Your task to perform on an android device: Open Google Image 0: 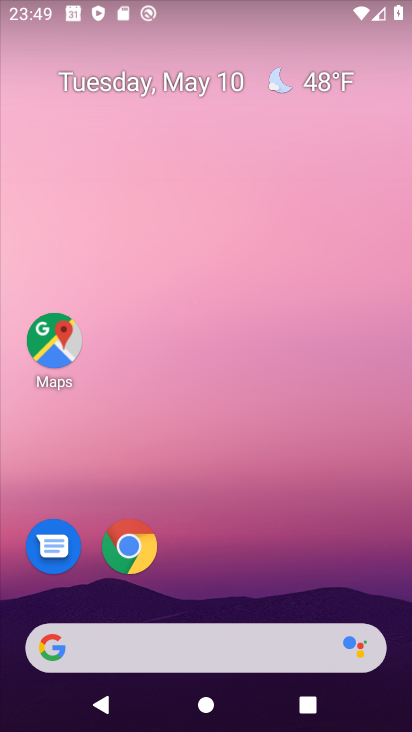
Step 0: drag from (184, 553) to (170, 165)
Your task to perform on an android device: Open Google Image 1: 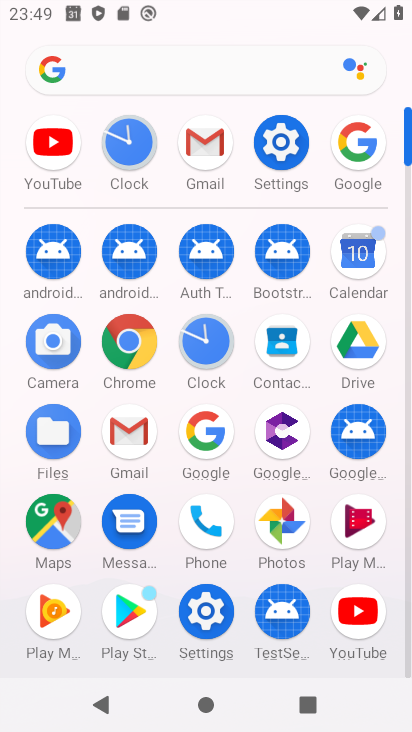
Step 1: click (344, 158)
Your task to perform on an android device: Open Google Image 2: 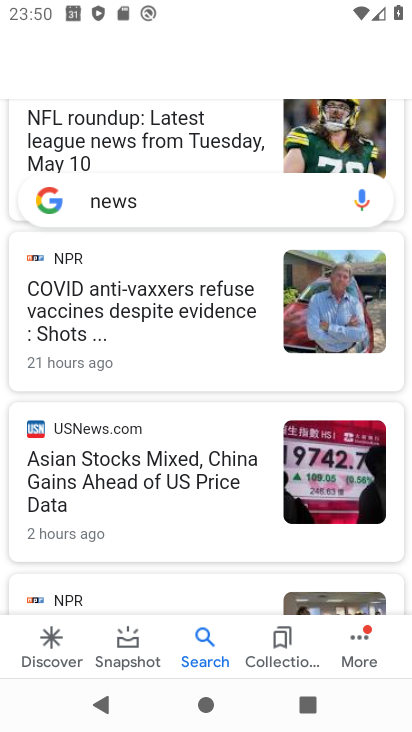
Step 2: task complete